Your task to perform on an android device: What's the weather today? Image 0: 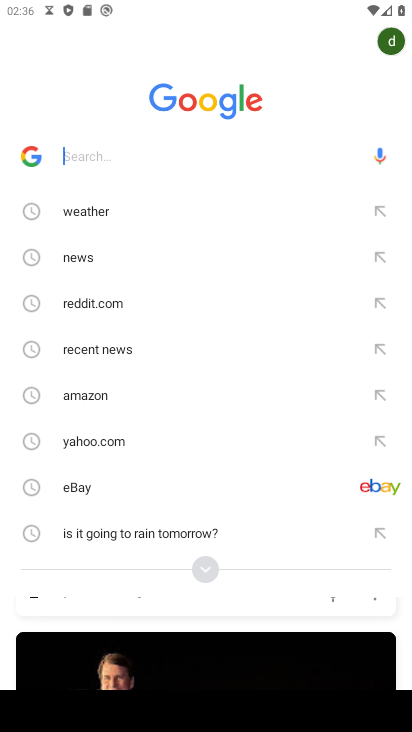
Step 0: press home button
Your task to perform on an android device: What's the weather today? Image 1: 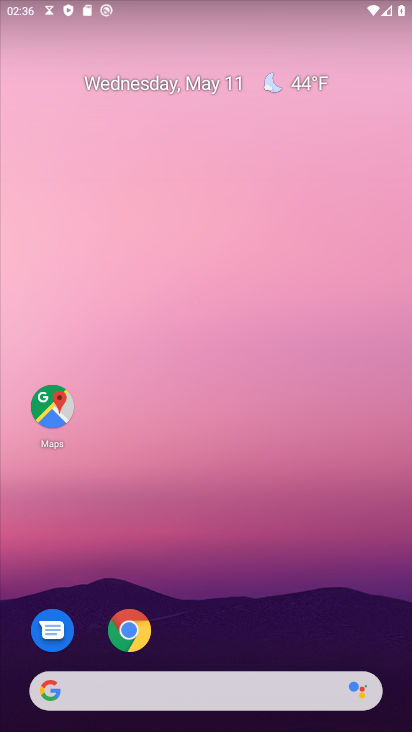
Step 1: click (270, 82)
Your task to perform on an android device: What's the weather today? Image 2: 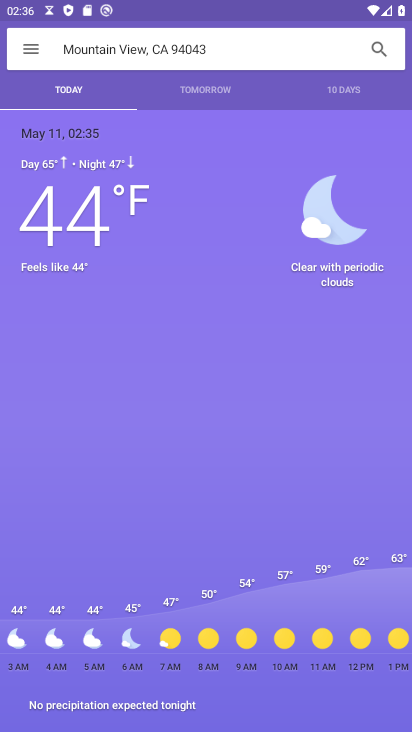
Step 2: task complete